Your task to perform on an android device: turn on notifications settings in the gmail app Image 0: 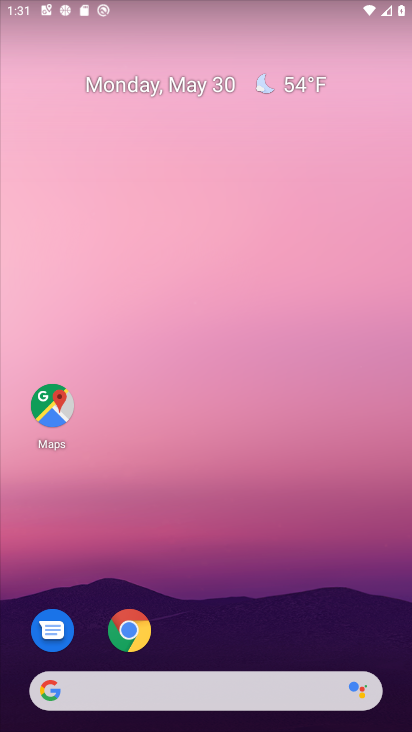
Step 0: press home button
Your task to perform on an android device: turn on notifications settings in the gmail app Image 1: 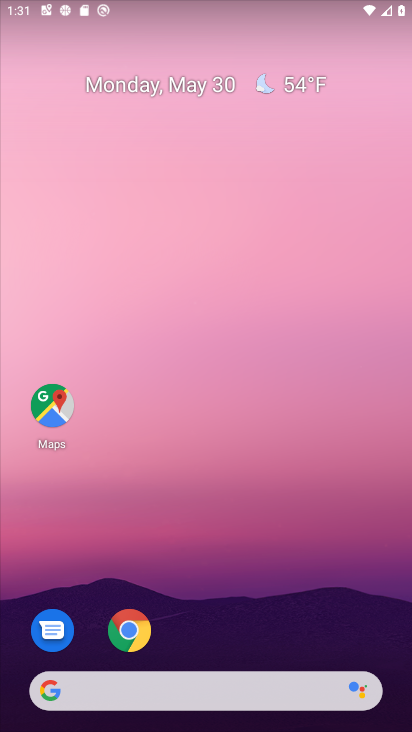
Step 1: drag from (165, 694) to (303, 153)
Your task to perform on an android device: turn on notifications settings in the gmail app Image 2: 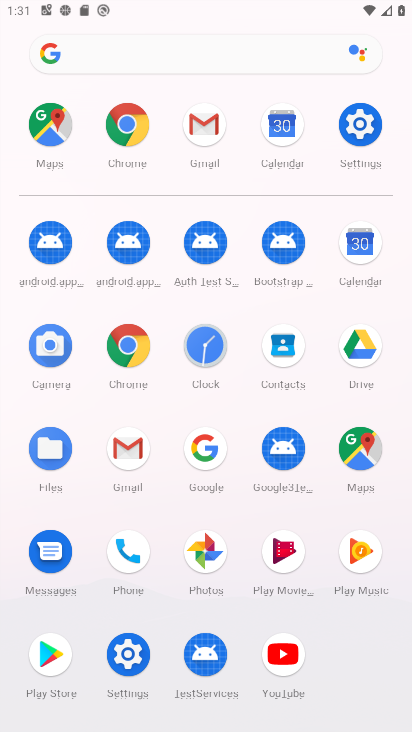
Step 2: click (197, 136)
Your task to perform on an android device: turn on notifications settings in the gmail app Image 3: 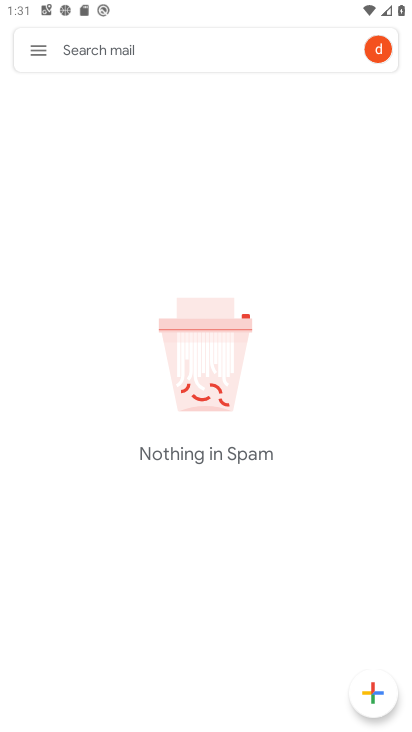
Step 3: click (37, 43)
Your task to perform on an android device: turn on notifications settings in the gmail app Image 4: 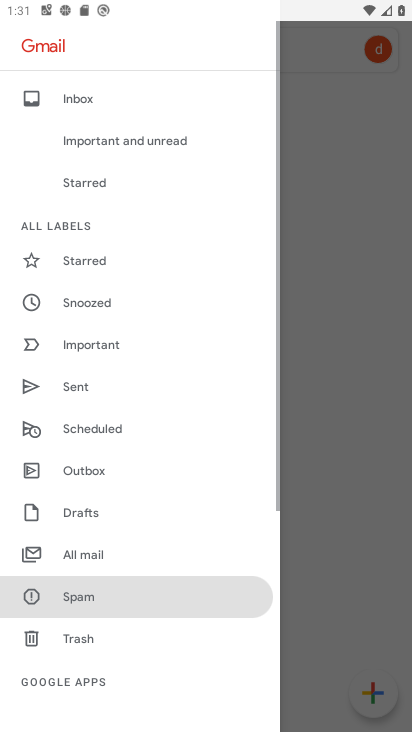
Step 4: drag from (121, 641) to (280, 13)
Your task to perform on an android device: turn on notifications settings in the gmail app Image 5: 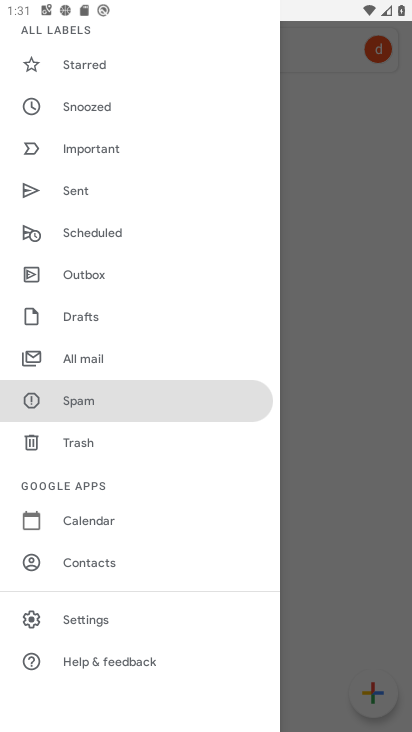
Step 5: click (91, 612)
Your task to perform on an android device: turn on notifications settings in the gmail app Image 6: 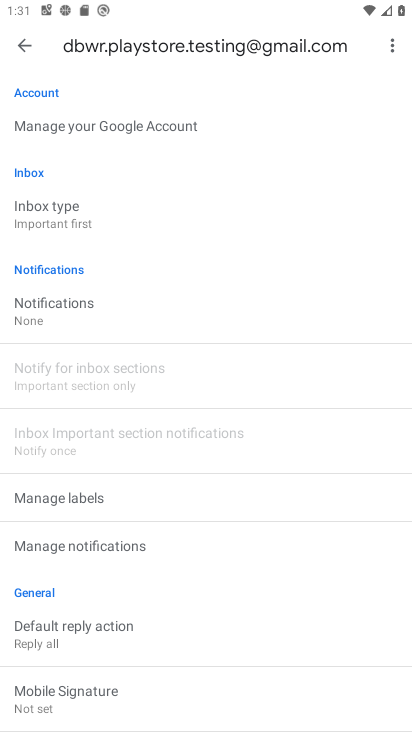
Step 6: click (37, 321)
Your task to perform on an android device: turn on notifications settings in the gmail app Image 7: 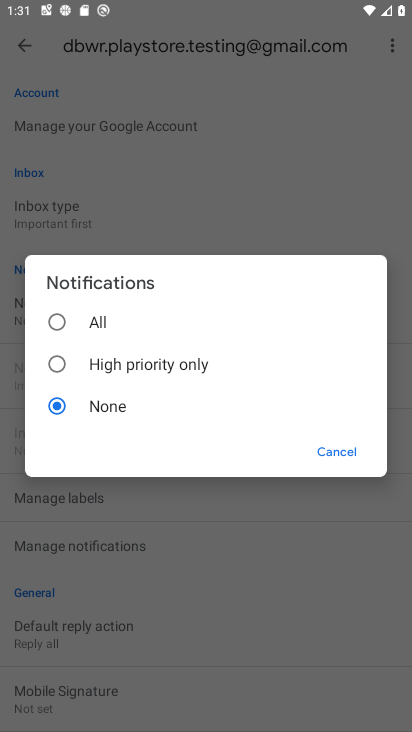
Step 7: click (58, 314)
Your task to perform on an android device: turn on notifications settings in the gmail app Image 8: 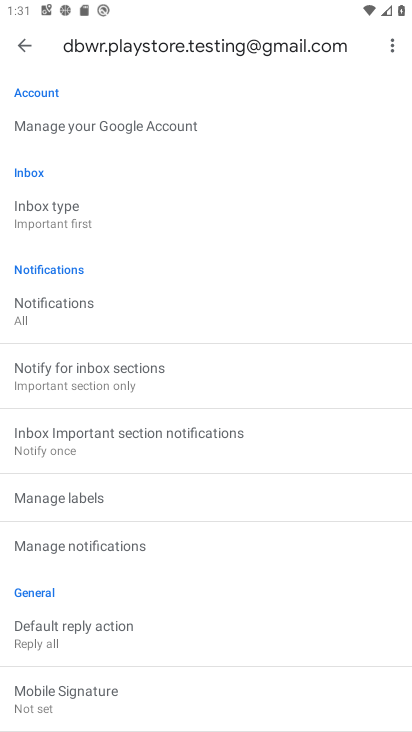
Step 8: task complete